Your task to perform on an android device: Is it going to rain tomorrow? Image 0: 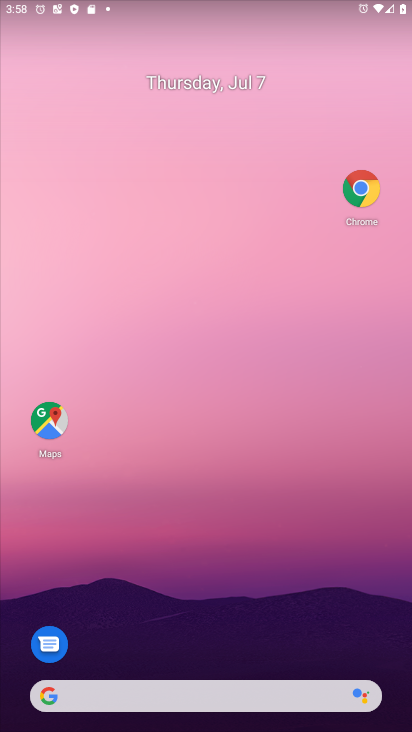
Step 0: click (368, 198)
Your task to perform on an android device: Is it going to rain tomorrow? Image 1: 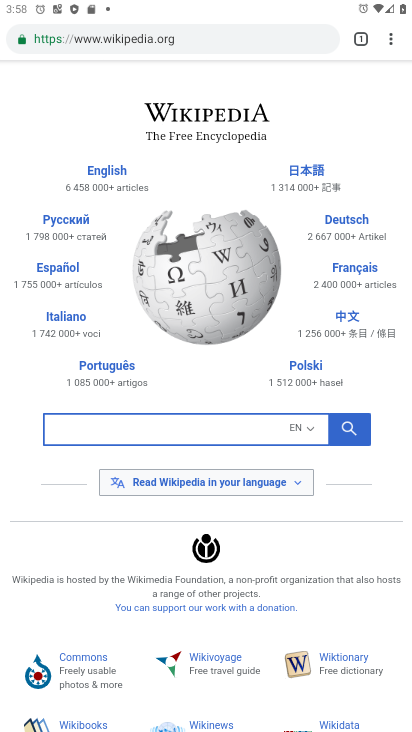
Step 1: click (168, 39)
Your task to perform on an android device: Is it going to rain tomorrow? Image 2: 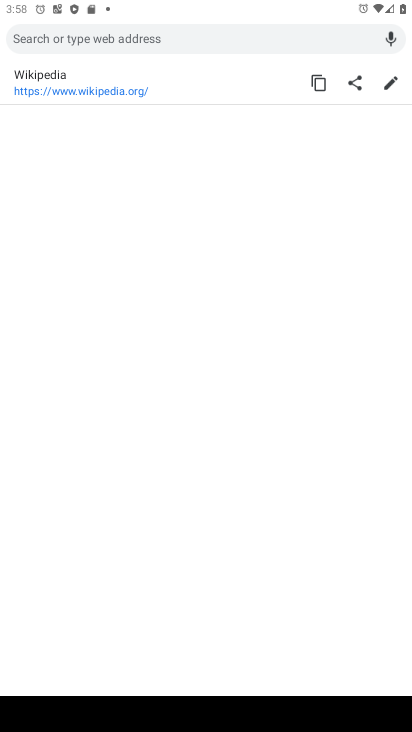
Step 2: type "is ti going to rain tomorrow?"
Your task to perform on an android device: Is it going to rain tomorrow? Image 3: 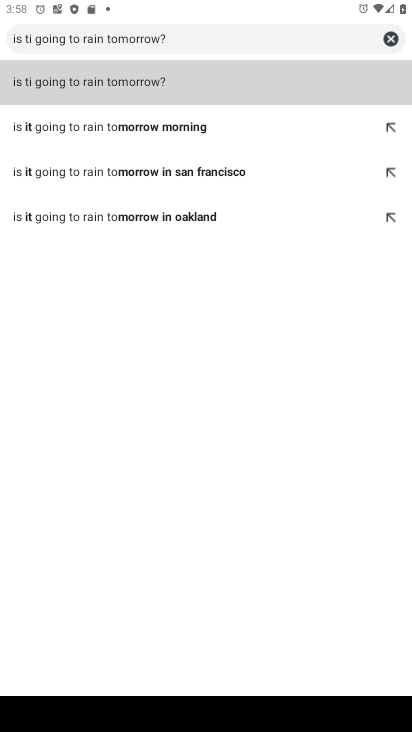
Step 3: click (248, 87)
Your task to perform on an android device: Is it going to rain tomorrow? Image 4: 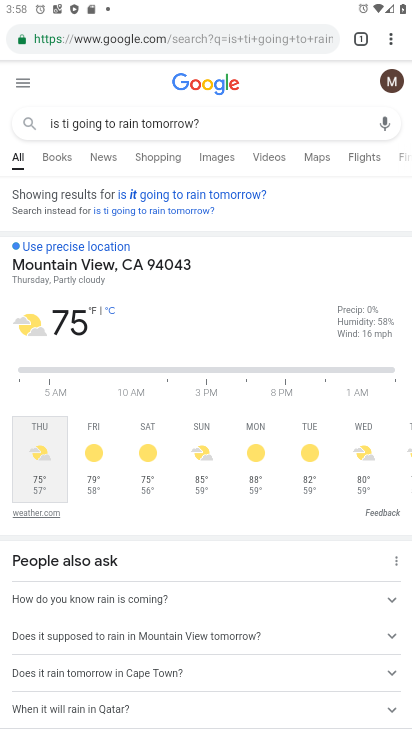
Step 4: task complete